Your task to perform on an android device: turn on priority inbox in the gmail app Image 0: 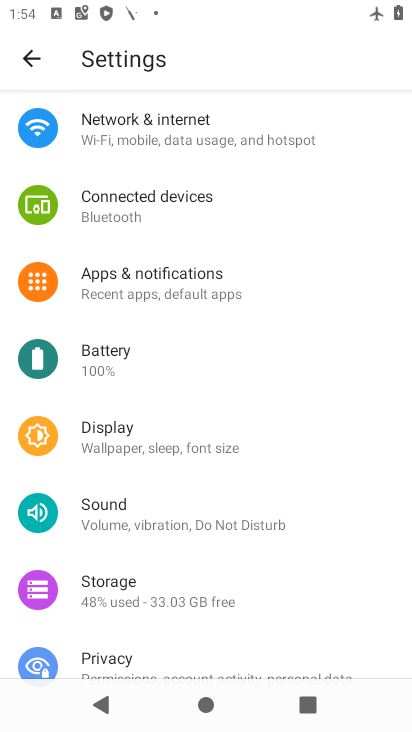
Step 0: press home button
Your task to perform on an android device: turn on priority inbox in the gmail app Image 1: 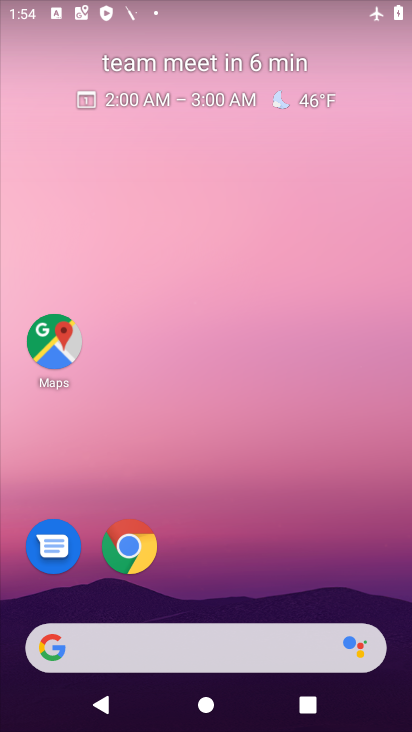
Step 1: drag from (345, 591) to (270, 49)
Your task to perform on an android device: turn on priority inbox in the gmail app Image 2: 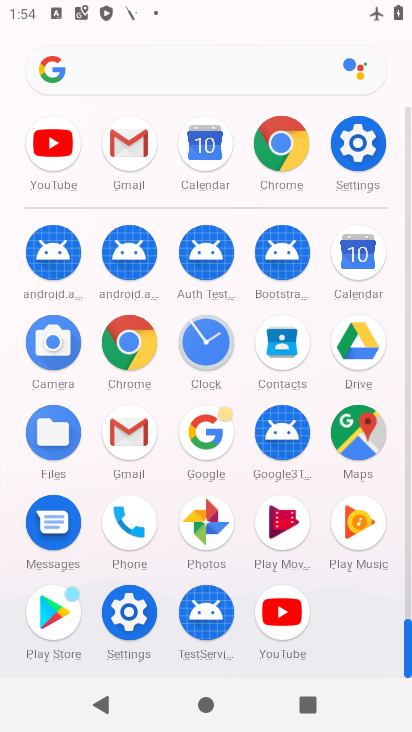
Step 2: click (127, 431)
Your task to perform on an android device: turn on priority inbox in the gmail app Image 3: 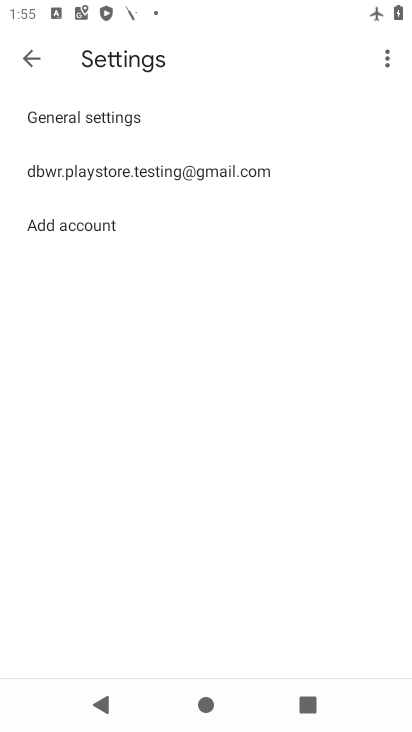
Step 3: click (134, 166)
Your task to perform on an android device: turn on priority inbox in the gmail app Image 4: 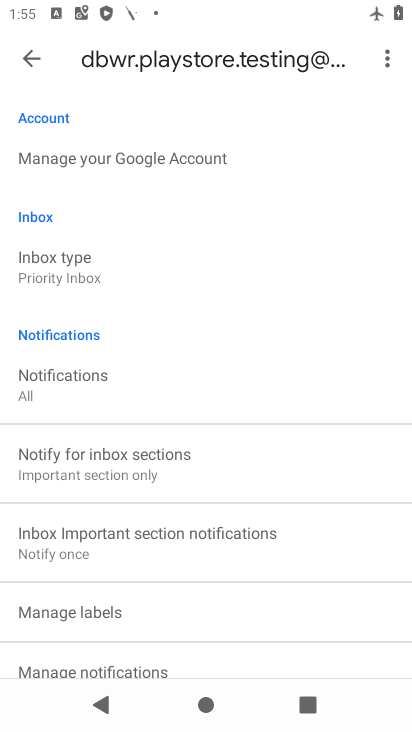
Step 4: click (52, 265)
Your task to perform on an android device: turn on priority inbox in the gmail app Image 5: 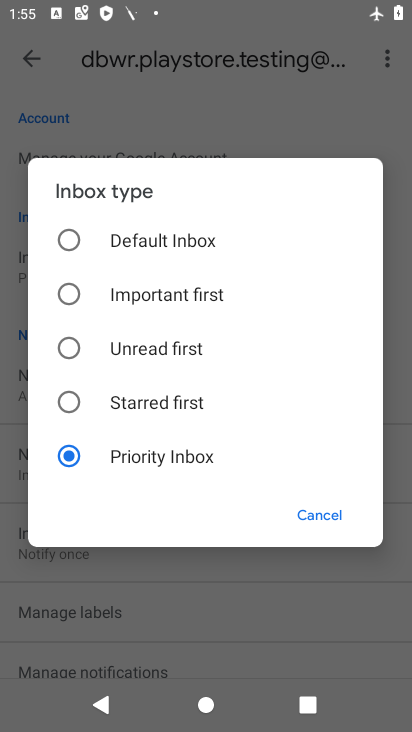
Step 5: task complete